Your task to perform on an android device: Go to notification settings Image 0: 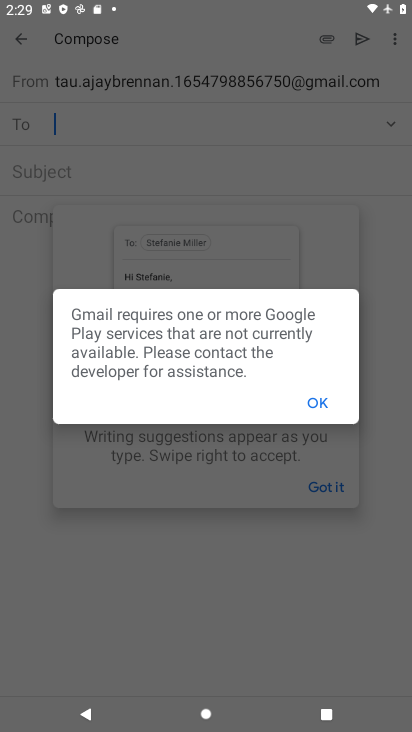
Step 0: press home button
Your task to perform on an android device: Go to notification settings Image 1: 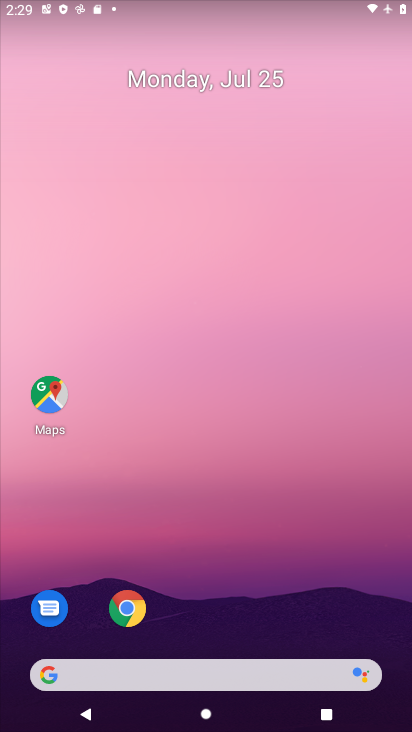
Step 1: drag from (206, 641) to (253, 57)
Your task to perform on an android device: Go to notification settings Image 2: 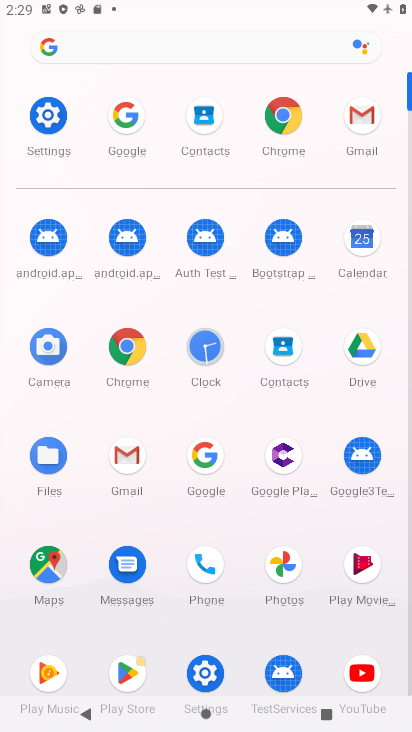
Step 2: click (55, 123)
Your task to perform on an android device: Go to notification settings Image 3: 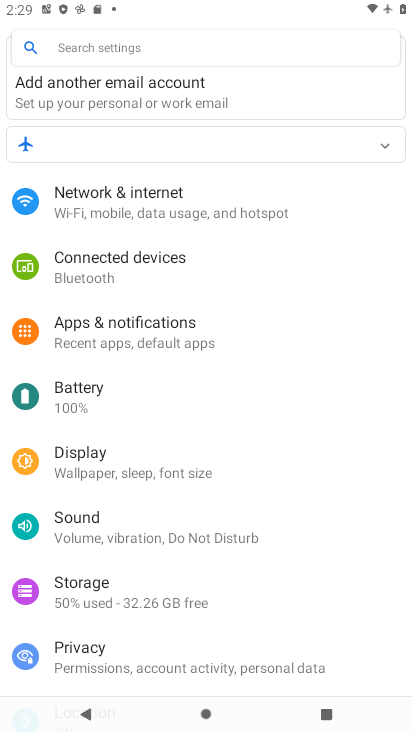
Step 3: click (205, 309)
Your task to perform on an android device: Go to notification settings Image 4: 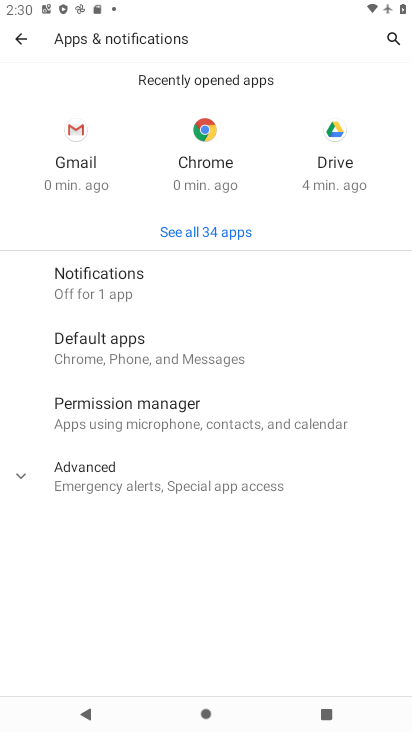
Step 4: click (137, 282)
Your task to perform on an android device: Go to notification settings Image 5: 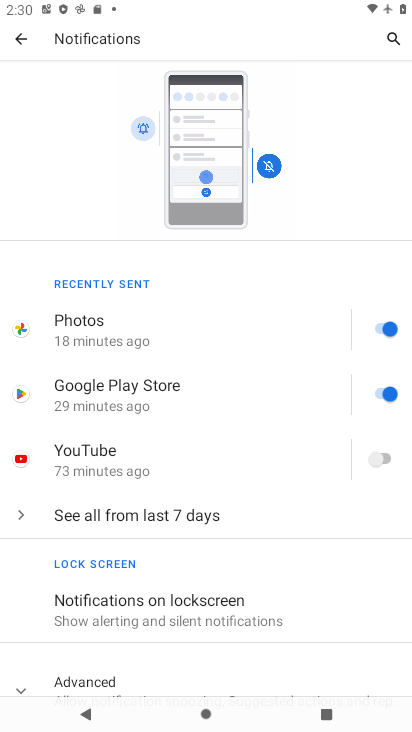
Step 5: task complete